Your task to perform on an android device: clear history in the chrome app Image 0: 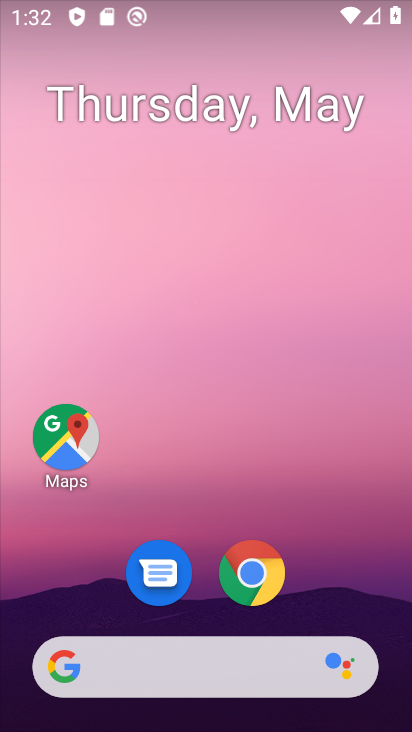
Step 0: drag from (350, 595) to (359, 228)
Your task to perform on an android device: clear history in the chrome app Image 1: 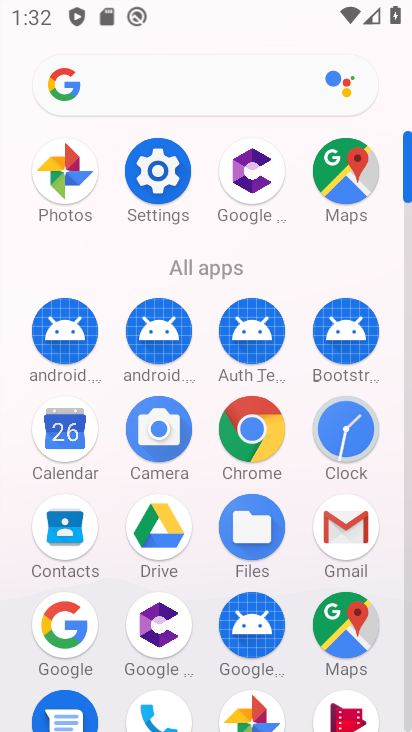
Step 1: click (269, 421)
Your task to perform on an android device: clear history in the chrome app Image 2: 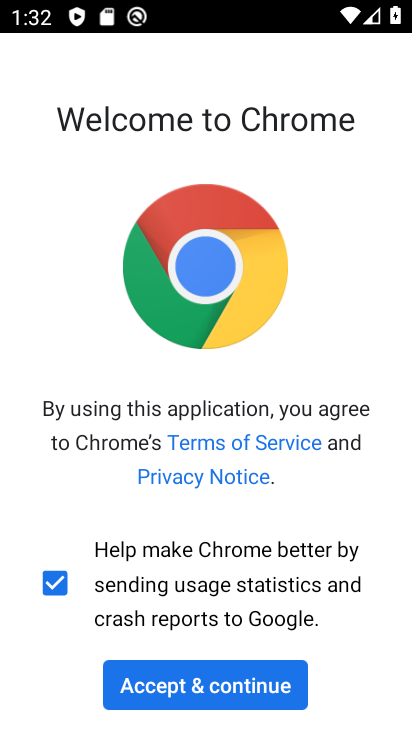
Step 2: click (240, 689)
Your task to perform on an android device: clear history in the chrome app Image 3: 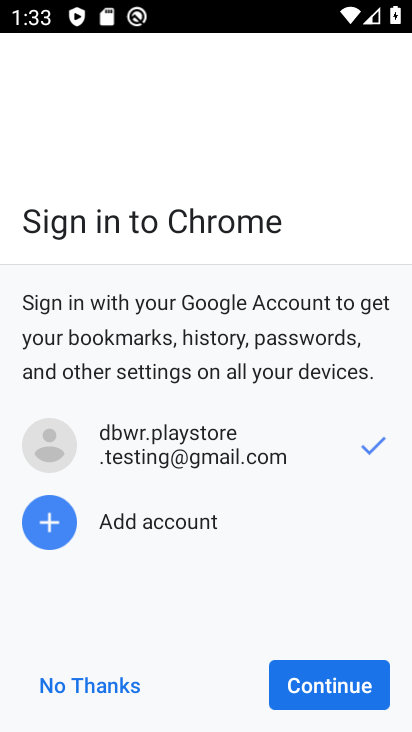
Step 3: click (302, 690)
Your task to perform on an android device: clear history in the chrome app Image 4: 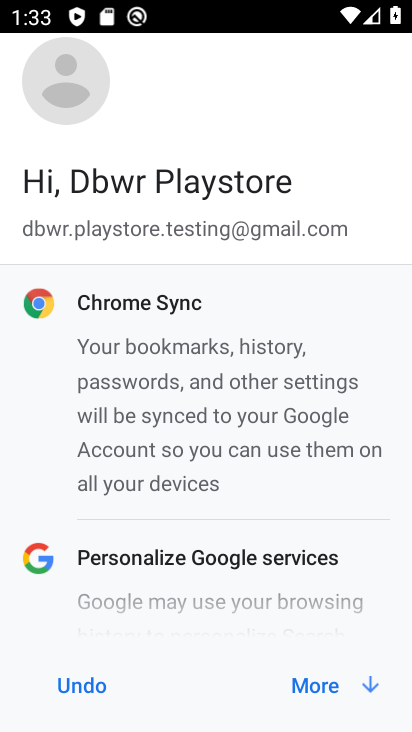
Step 4: click (302, 690)
Your task to perform on an android device: clear history in the chrome app Image 5: 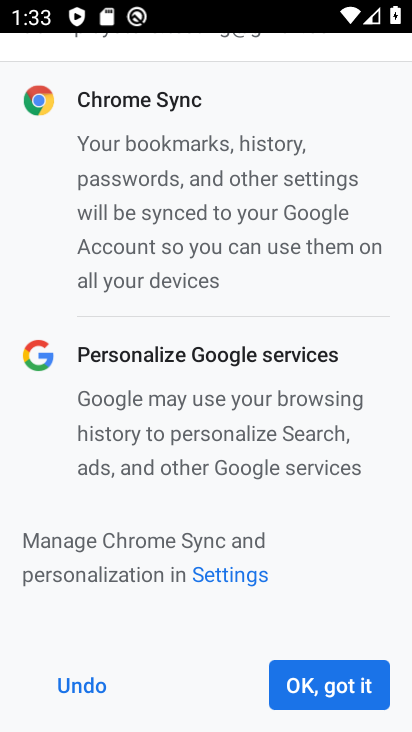
Step 5: click (302, 690)
Your task to perform on an android device: clear history in the chrome app Image 6: 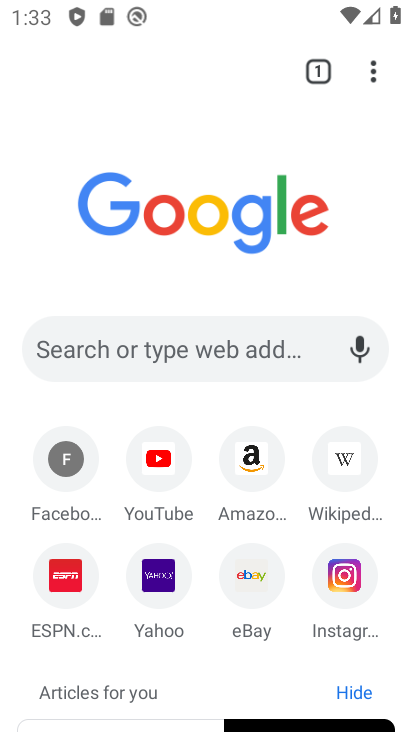
Step 6: click (374, 74)
Your task to perform on an android device: clear history in the chrome app Image 7: 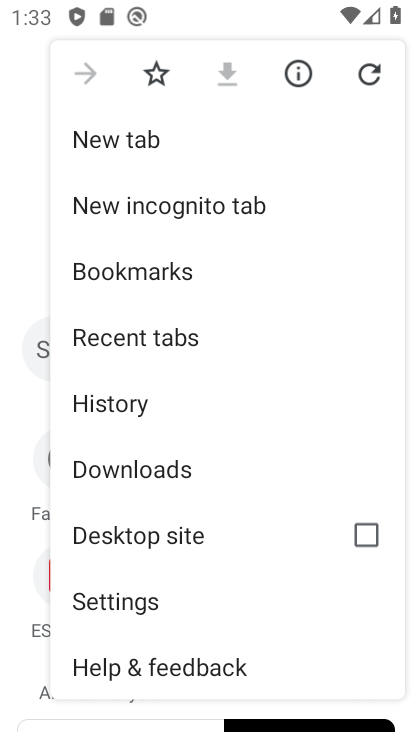
Step 7: click (145, 397)
Your task to perform on an android device: clear history in the chrome app Image 8: 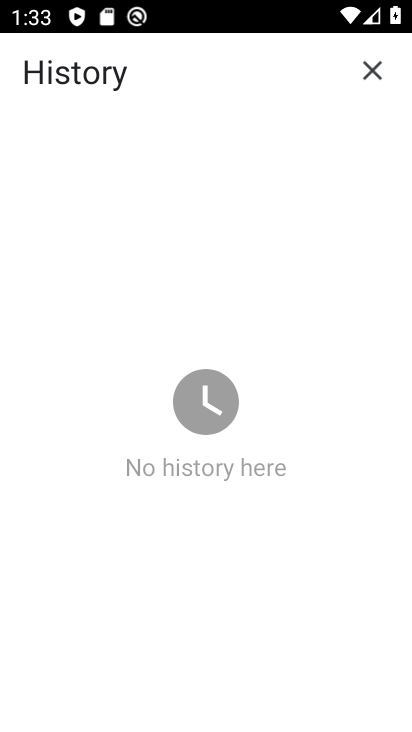
Step 8: task complete